Your task to perform on an android device: toggle priority inbox in the gmail app Image 0: 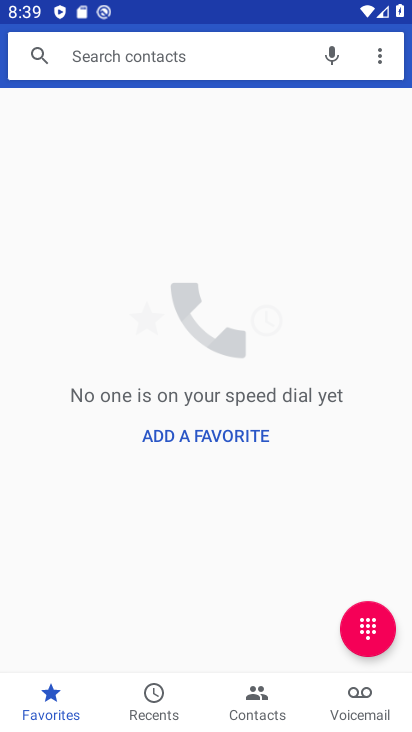
Step 0: press home button
Your task to perform on an android device: toggle priority inbox in the gmail app Image 1: 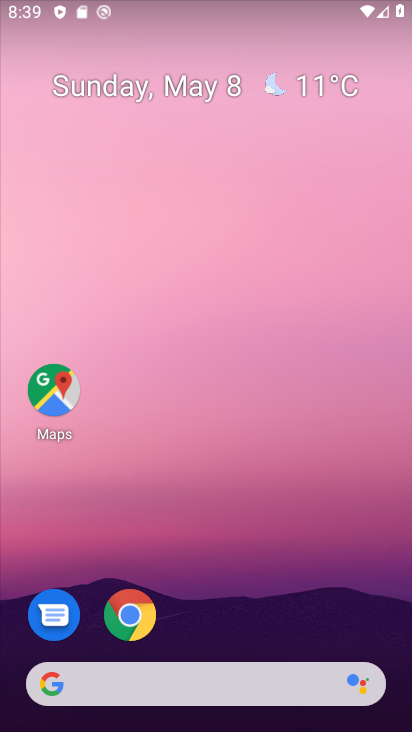
Step 1: drag from (323, 622) to (224, 208)
Your task to perform on an android device: toggle priority inbox in the gmail app Image 2: 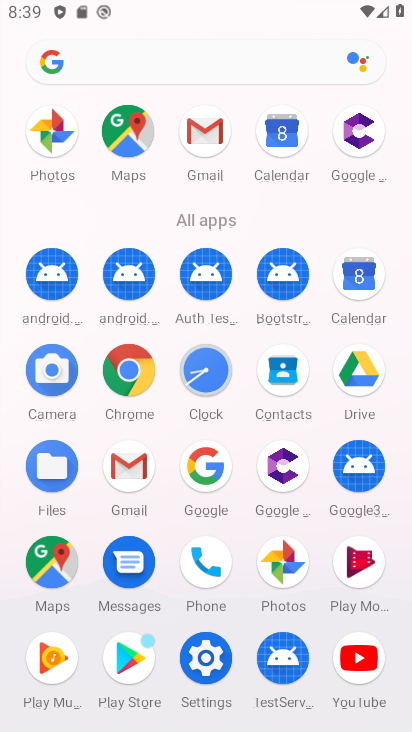
Step 2: click (198, 135)
Your task to perform on an android device: toggle priority inbox in the gmail app Image 3: 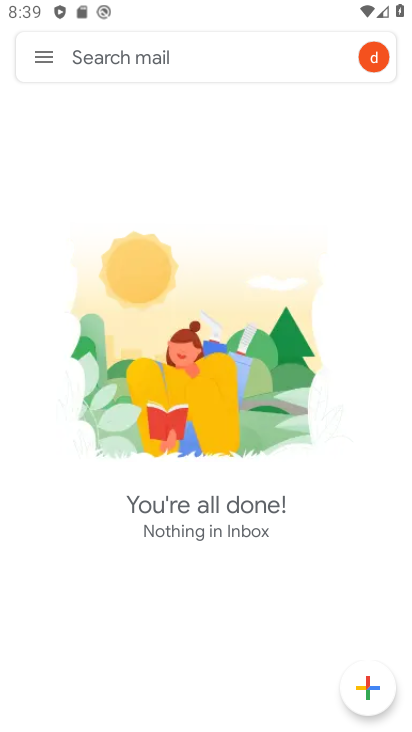
Step 3: click (41, 55)
Your task to perform on an android device: toggle priority inbox in the gmail app Image 4: 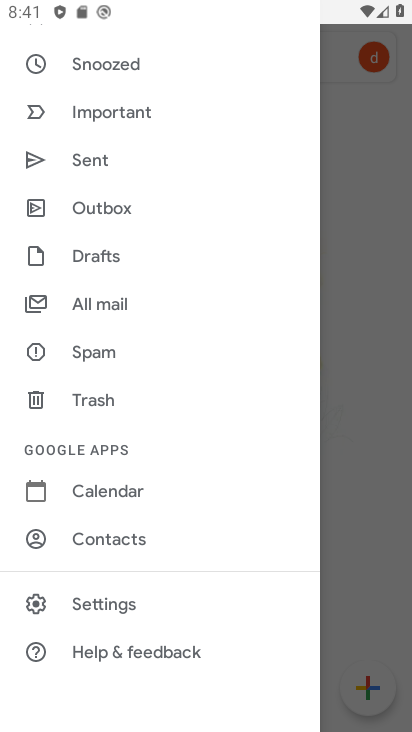
Step 4: click (117, 600)
Your task to perform on an android device: toggle priority inbox in the gmail app Image 5: 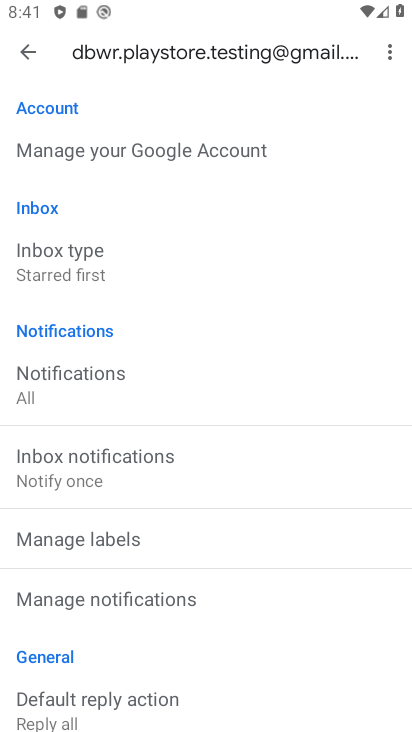
Step 5: click (70, 258)
Your task to perform on an android device: toggle priority inbox in the gmail app Image 6: 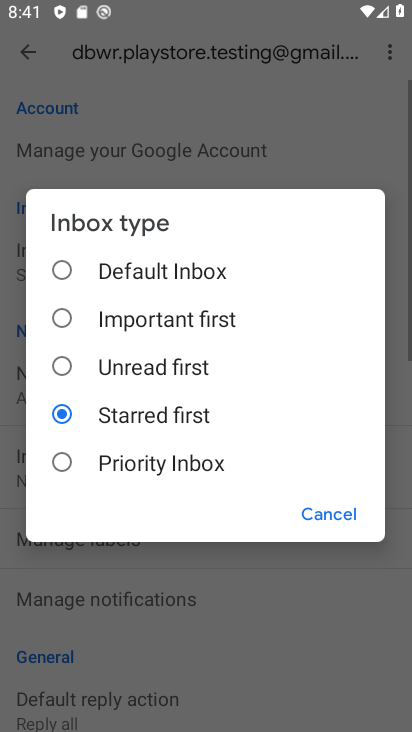
Step 6: click (161, 489)
Your task to perform on an android device: toggle priority inbox in the gmail app Image 7: 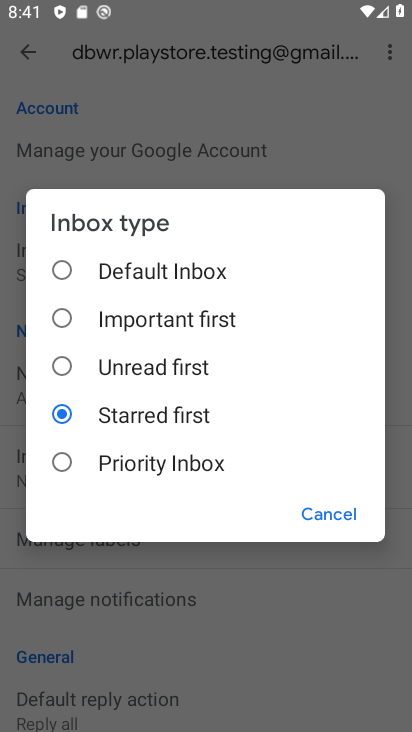
Step 7: click (168, 465)
Your task to perform on an android device: toggle priority inbox in the gmail app Image 8: 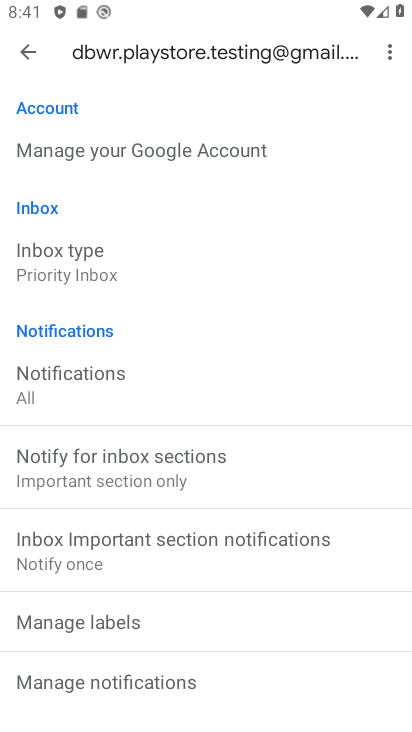
Step 8: task complete